Your task to perform on an android device: Do I have any events tomorrow? Image 0: 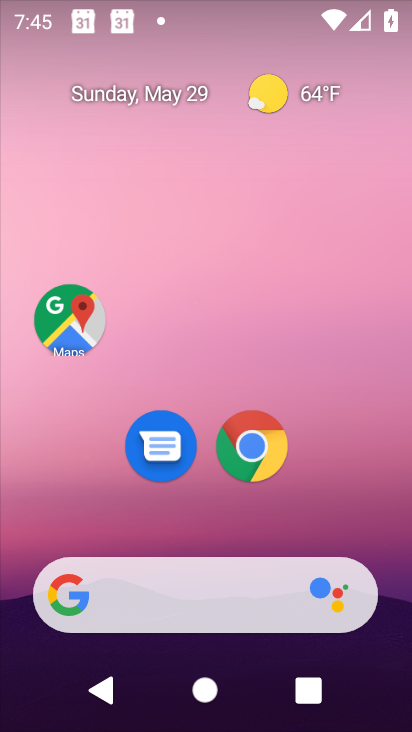
Step 0: drag from (193, 522) to (206, 252)
Your task to perform on an android device: Do I have any events tomorrow? Image 1: 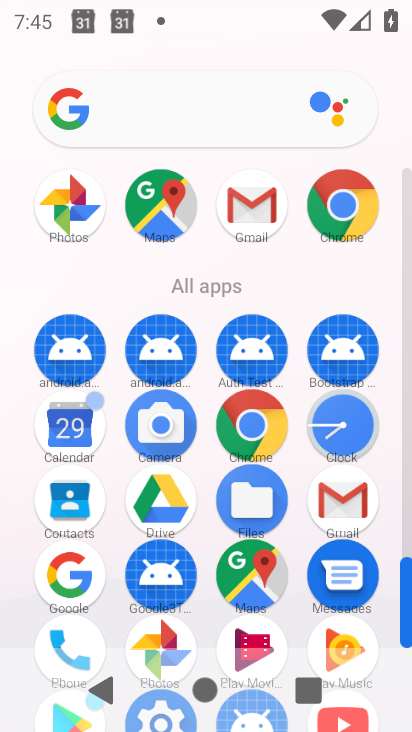
Step 1: click (88, 433)
Your task to perform on an android device: Do I have any events tomorrow? Image 2: 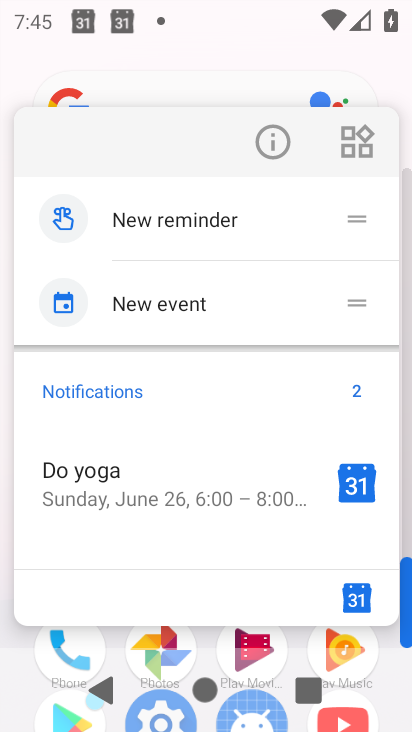
Step 2: click (285, 130)
Your task to perform on an android device: Do I have any events tomorrow? Image 3: 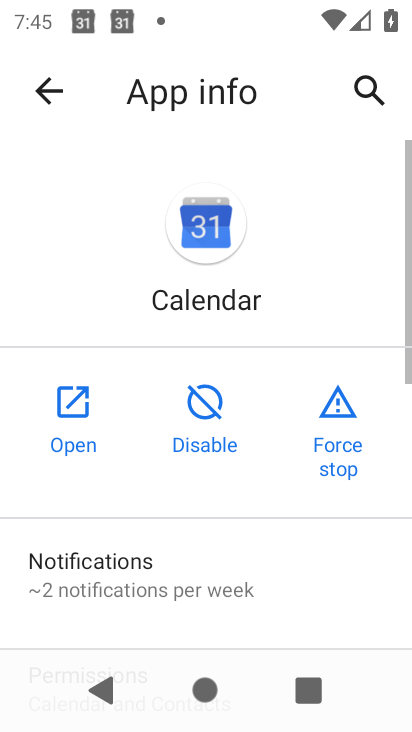
Step 3: click (67, 445)
Your task to perform on an android device: Do I have any events tomorrow? Image 4: 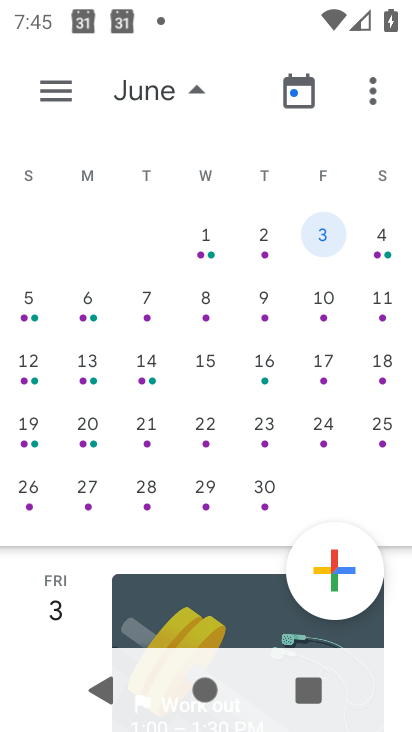
Step 4: drag from (243, 556) to (327, 317)
Your task to perform on an android device: Do I have any events tomorrow? Image 5: 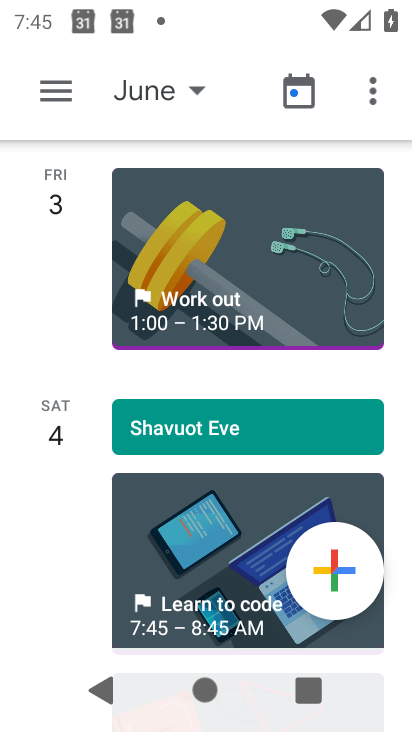
Step 5: drag from (223, 315) to (272, 709)
Your task to perform on an android device: Do I have any events tomorrow? Image 6: 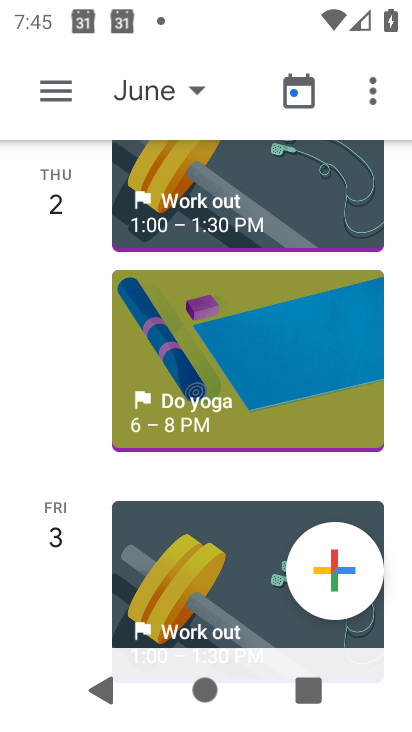
Step 6: drag from (234, 530) to (282, 714)
Your task to perform on an android device: Do I have any events tomorrow? Image 7: 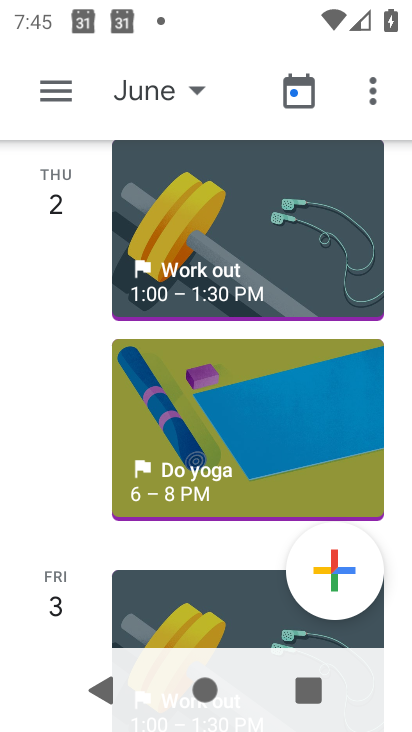
Step 7: drag from (219, 302) to (303, 555)
Your task to perform on an android device: Do I have any events tomorrow? Image 8: 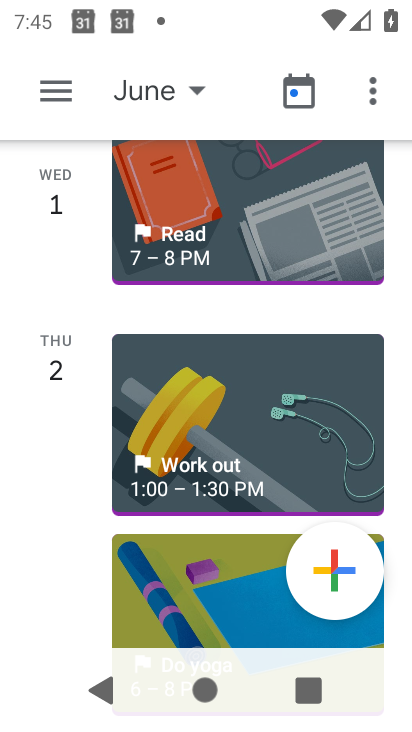
Step 8: click (181, 78)
Your task to perform on an android device: Do I have any events tomorrow? Image 9: 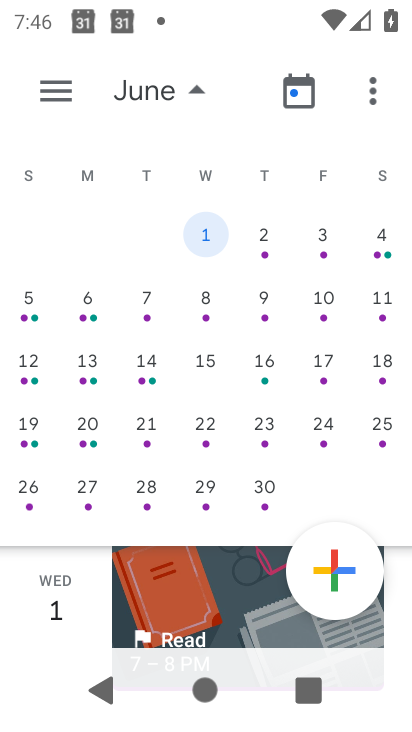
Step 9: drag from (42, 404) to (351, 333)
Your task to perform on an android device: Do I have any events tomorrow? Image 10: 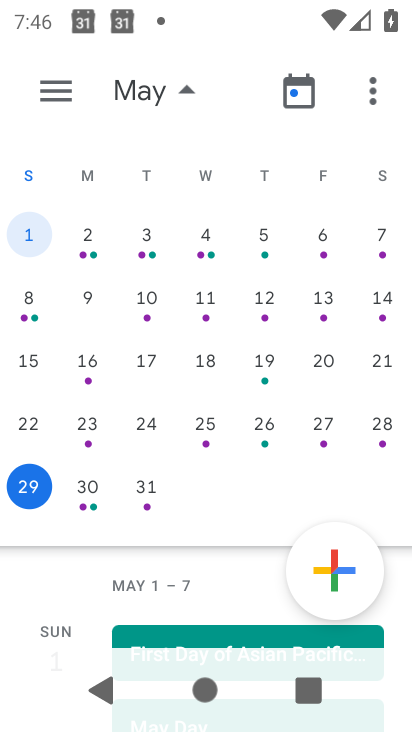
Step 10: click (105, 498)
Your task to perform on an android device: Do I have any events tomorrow? Image 11: 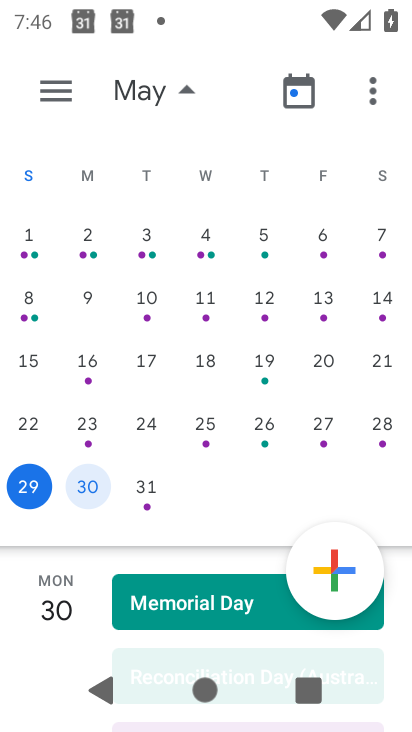
Step 11: task complete